Your task to perform on an android device: Turn on the flashlight Image 0: 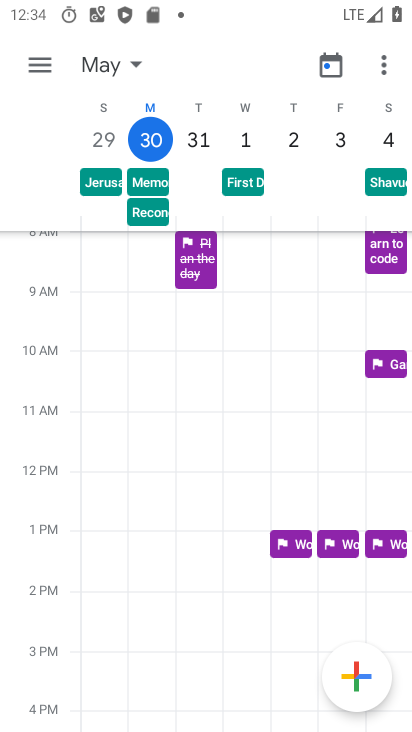
Step 0: press home button
Your task to perform on an android device: Turn on the flashlight Image 1: 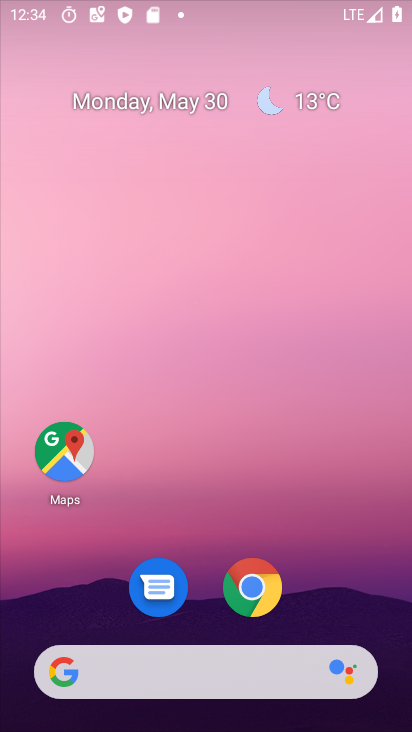
Step 1: drag from (346, 561) to (243, 63)
Your task to perform on an android device: Turn on the flashlight Image 2: 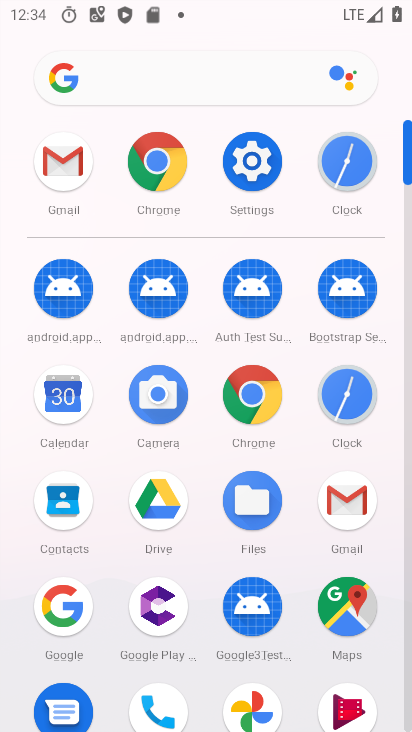
Step 2: click (243, 137)
Your task to perform on an android device: Turn on the flashlight Image 3: 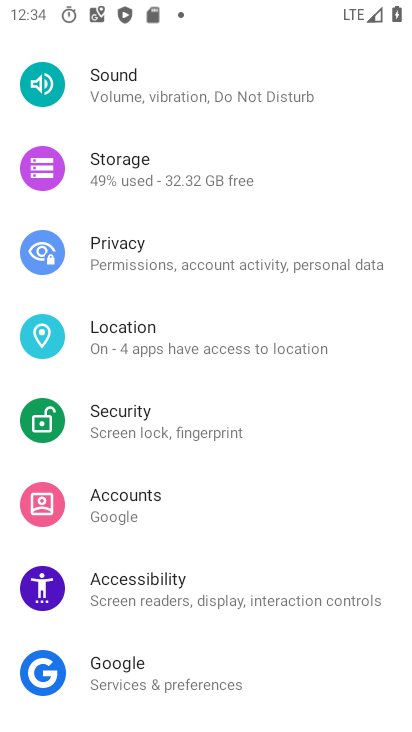
Step 3: drag from (237, 114) to (262, 378)
Your task to perform on an android device: Turn on the flashlight Image 4: 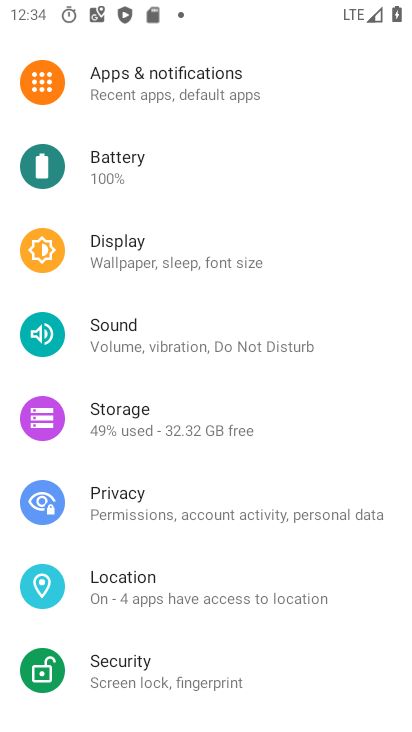
Step 4: drag from (233, 135) to (324, 499)
Your task to perform on an android device: Turn on the flashlight Image 5: 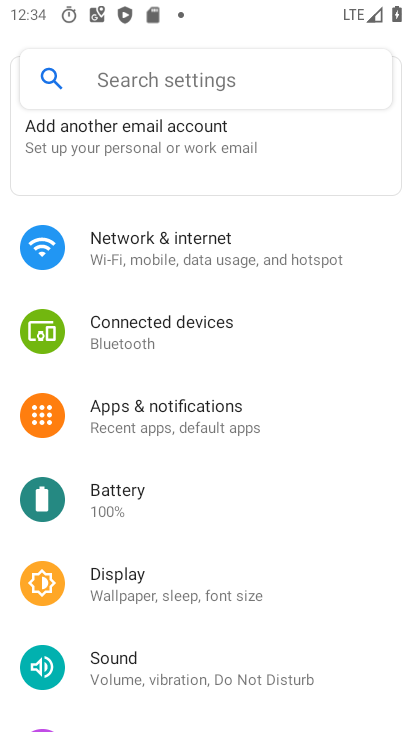
Step 5: click (165, 590)
Your task to perform on an android device: Turn on the flashlight Image 6: 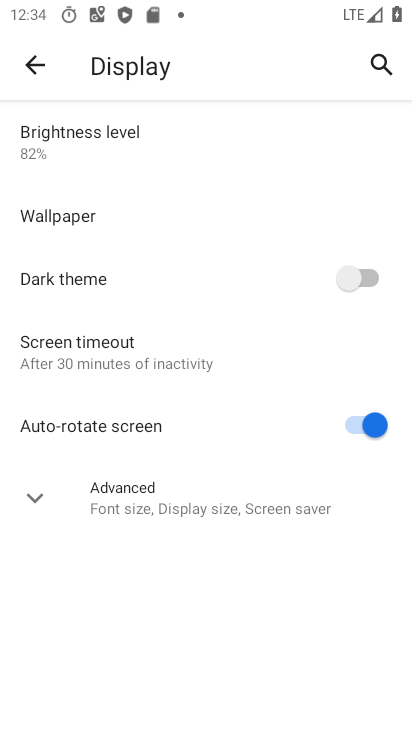
Step 6: task complete